Your task to perform on an android device: Open Google Chrome and open the bookmarks view Image 0: 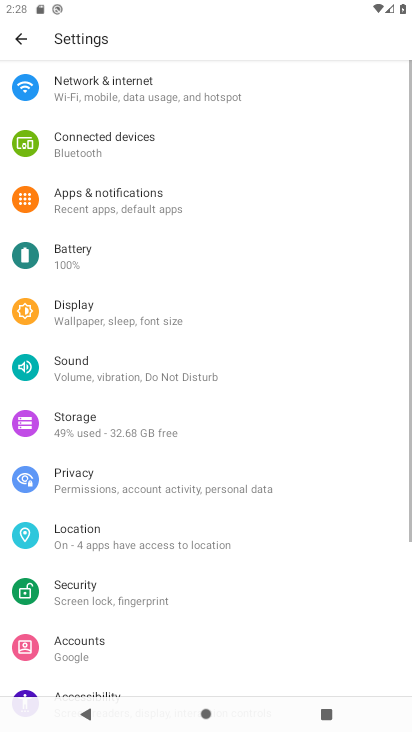
Step 0: press home button
Your task to perform on an android device: Open Google Chrome and open the bookmarks view Image 1: 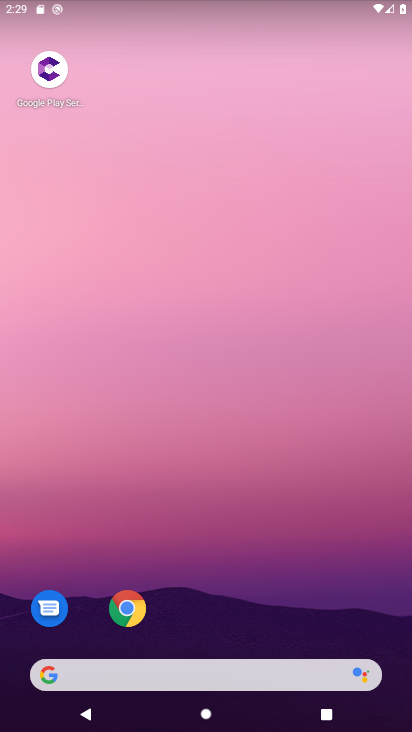
Step 1: click (128, 608)
Your task to perform on an android device: Open Google Chrome and open the bookmarks view Image 2: 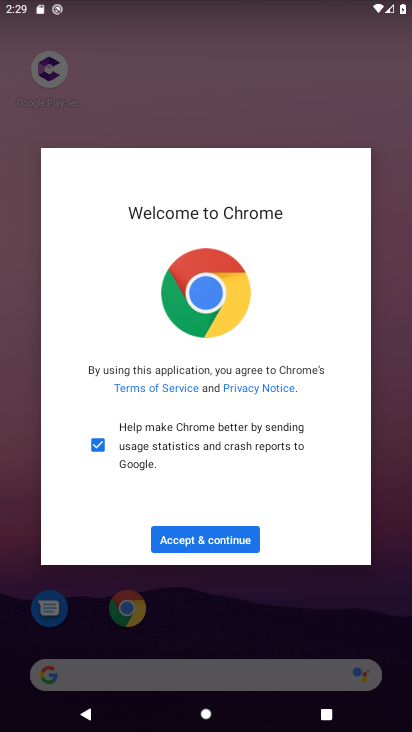
Step 2: click (208, 542)
Your task to perform on an android device: Open Google Chrome and open the bookmarks view Image 3: 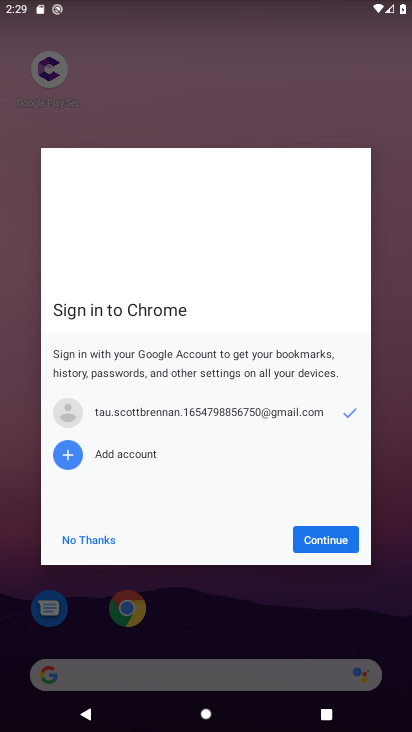
Step 3: click (306, 546)
Your task to perform on an android device: Open Google Chrome and open the bookmarks view Image 4: 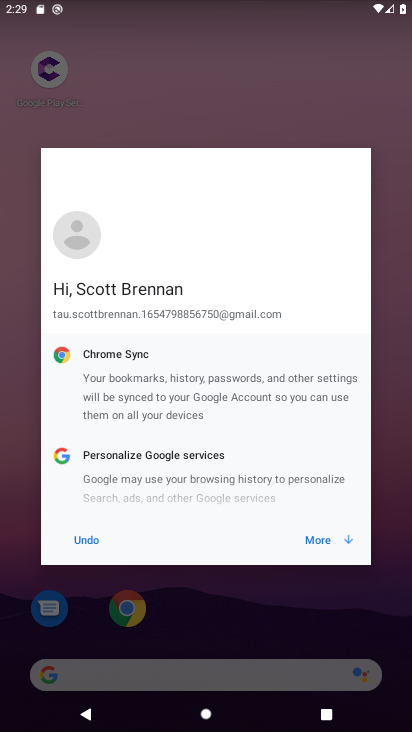
Step 4: click (306, 546)
Your task to perform on an android device: Open Google Chrome and open the bookmarks view Image 5: 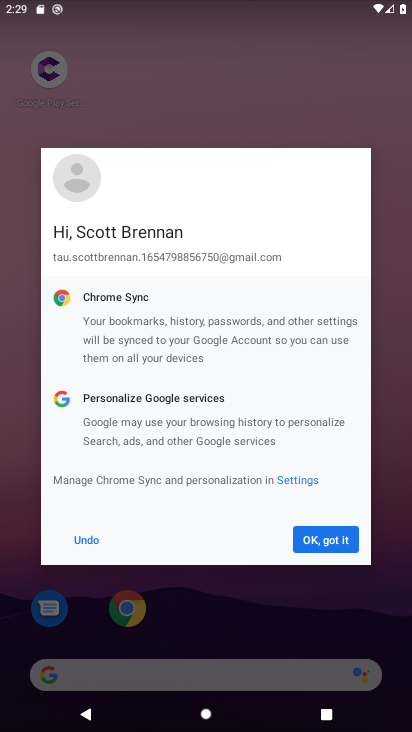
Step 5: click (306, 546)
Your task to perform on an android device: Open Google Chrome and open the bookmarks view Image 6: 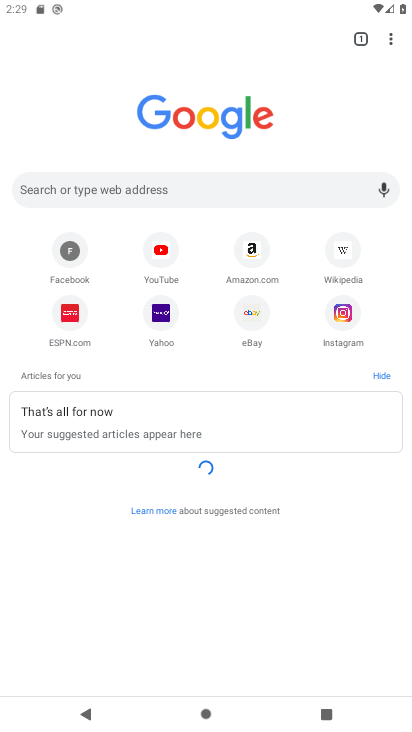
Step 6: click (393, 49)
Your task to perform on an android device: Open Google Chrome and open the bookmarks view Image 7: 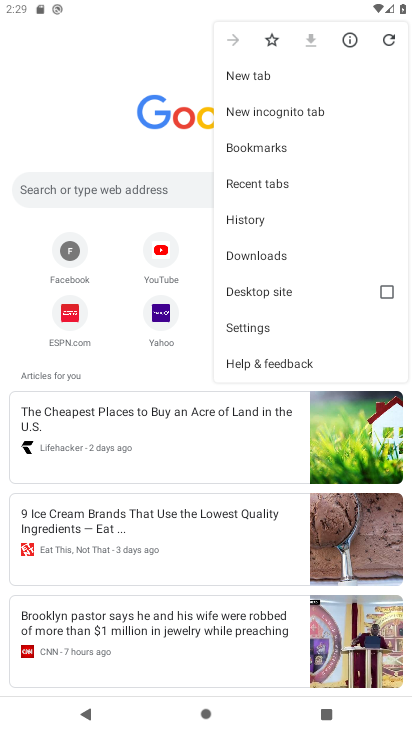
Step 7: click (265, 147)
Your task to perform on an android device: Open Google Chrome and open the bookmarks view Image 8: 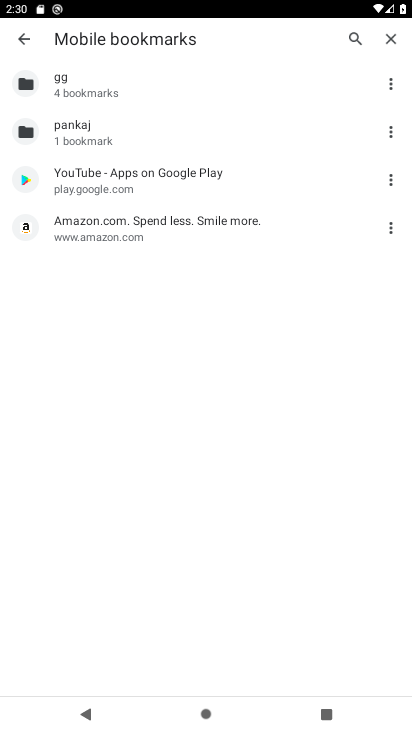
Step 8: task complete